Your task to perform on an android device: What's the weather going to be this weekend? Image 0: 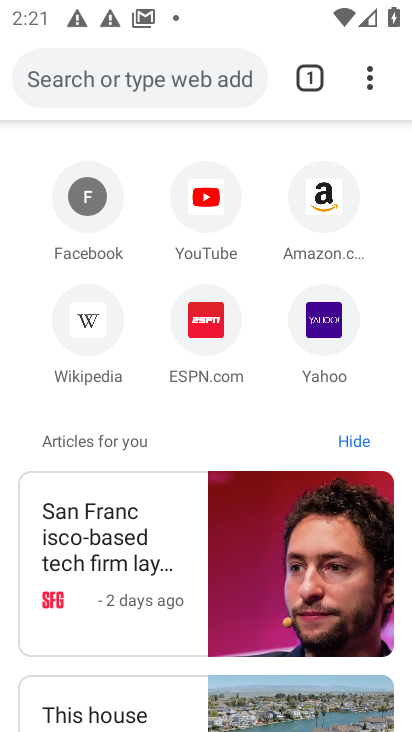
Step 0: press home button
Your task to perform on an android device: What's the weather going to be this weekend? Image 1: 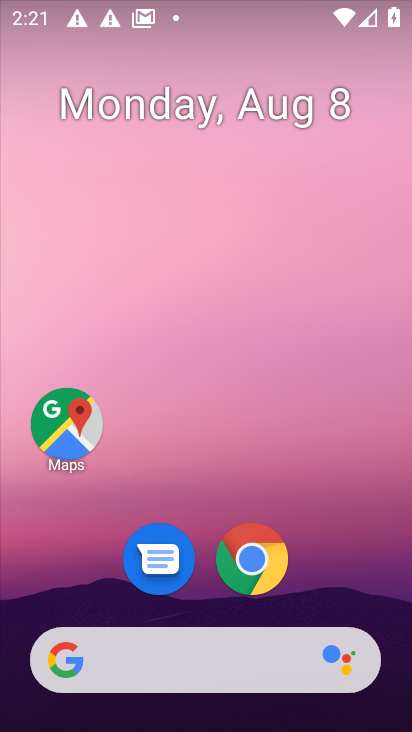
Step 1: drag from (195, 656) to (239, 131)
Your task to perform on an android device: What's the weather going to be this weekend? Image 2: 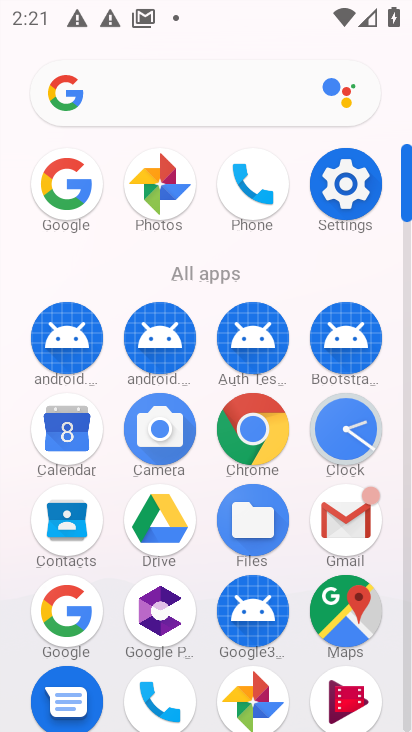
Step 2: click (64, 184)
Your task to perform on an android device: What's the weather going to be this weekend? Image 3: 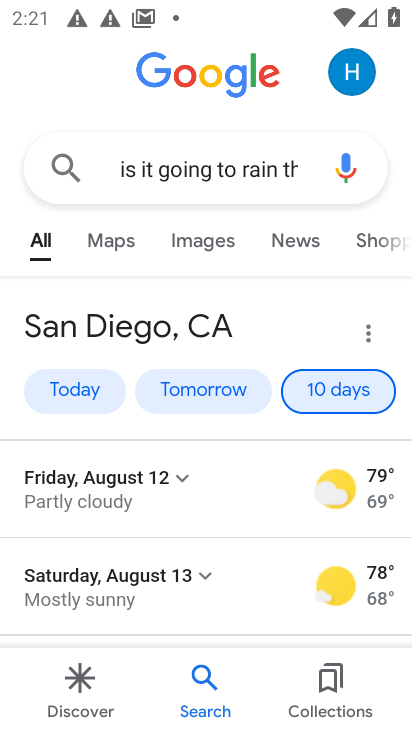
Step 3: click (231, 172)
Your task to perform on an android device: What's the weather going to be this weekend? Image 4: 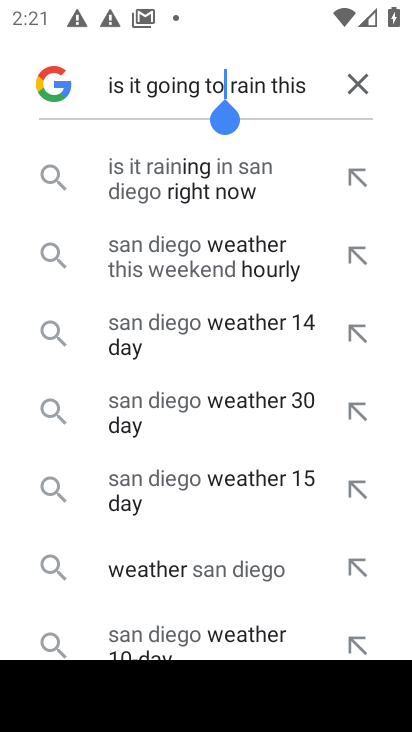
Step 4: click (363, 84)
Your task to perform on an android device: What's the weather going to be this weekend? Image 5: 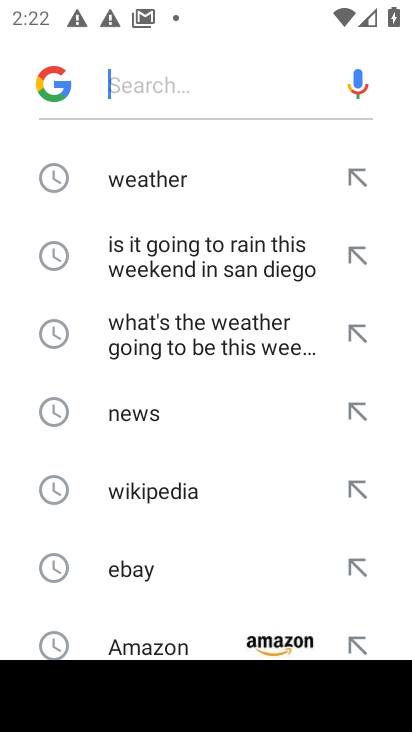
Step 5: type "What's the weather going to be this weekend?"
Your task to perform on an android device: What's the weather going to be this weekend? Image 6: 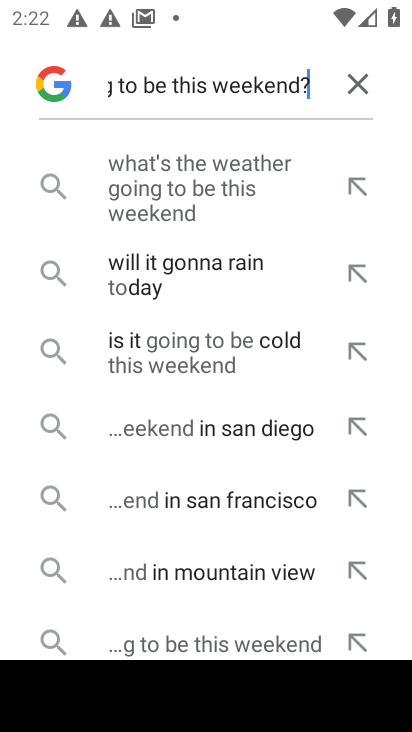
Step 6: click (189, 167)
Your task to perform on an android device: What's the weather going to be this weekend? Image 7: 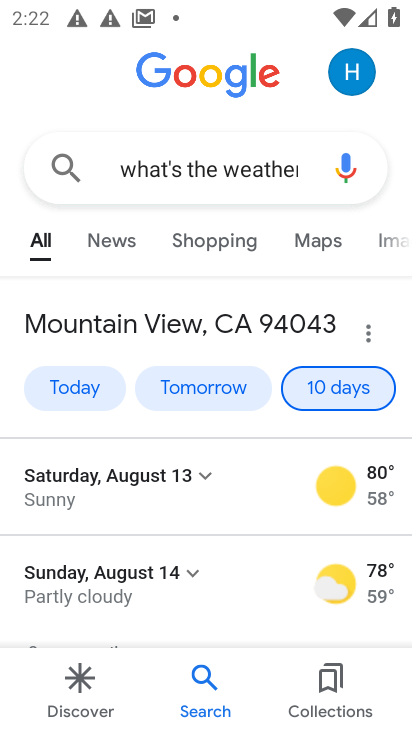
Step 7: task complete